Your task to perform on an android device: Turn off the flashlight Image 0: 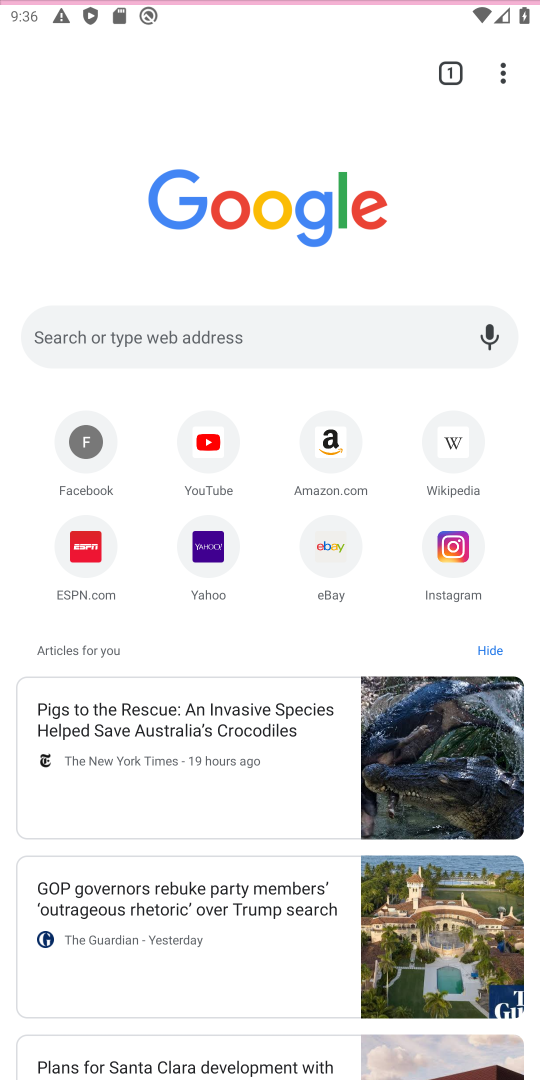
Step 0: press home button
Your task to perform on an android device: Turn off the flashlight Image 1: 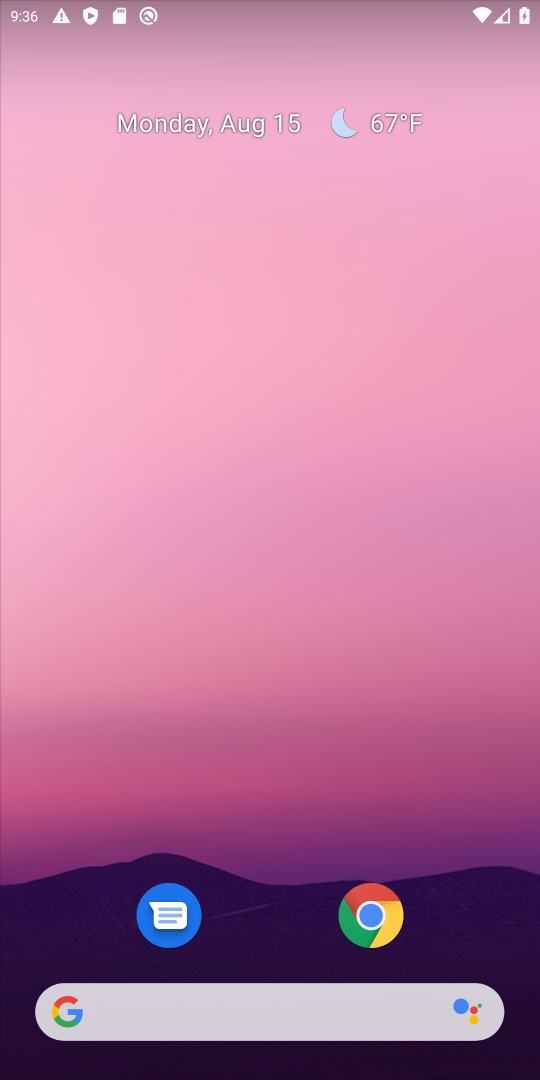
Step 1: task complete